Your task to perform on an android device: Do I have any events tomorrow? Image 0: 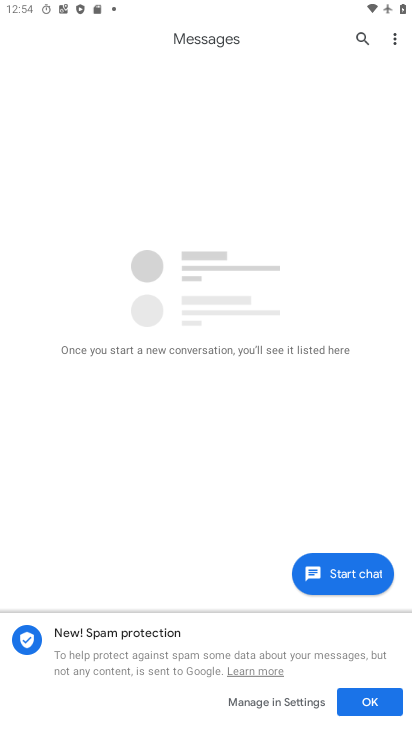
Step 0: press home button
Your task to perform on an android device: Do I have any events tomorrow? Image 1: 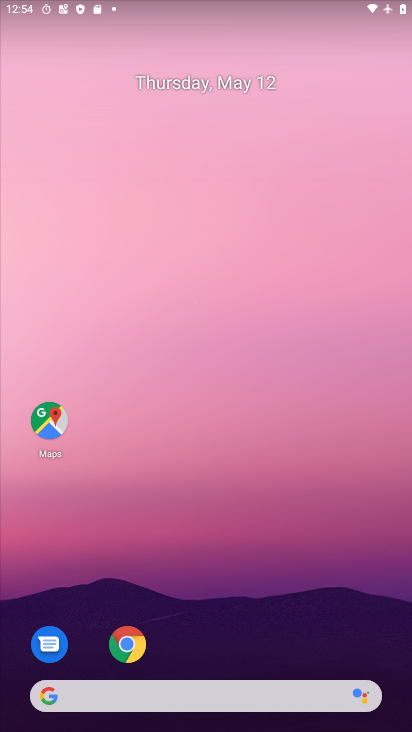
Step 1: drag from (239, 607) to (223, 212)
Your task to perform on an android device: Do I have any events tomorrow? Image 2: 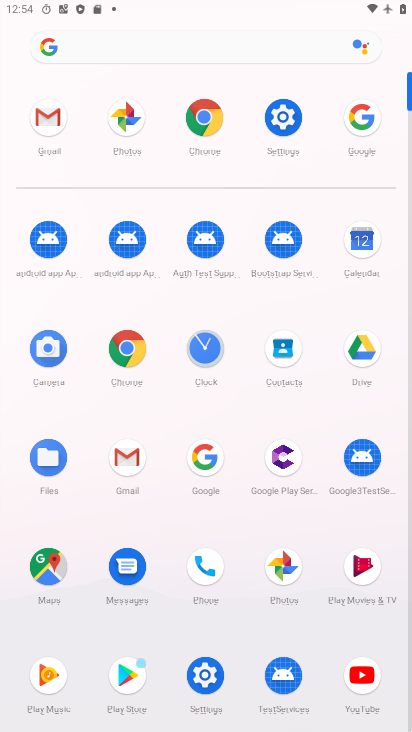
Step 2: click (352, 245)
Your task to perform on an android device: Do I have any events tomorrow? Image 3: 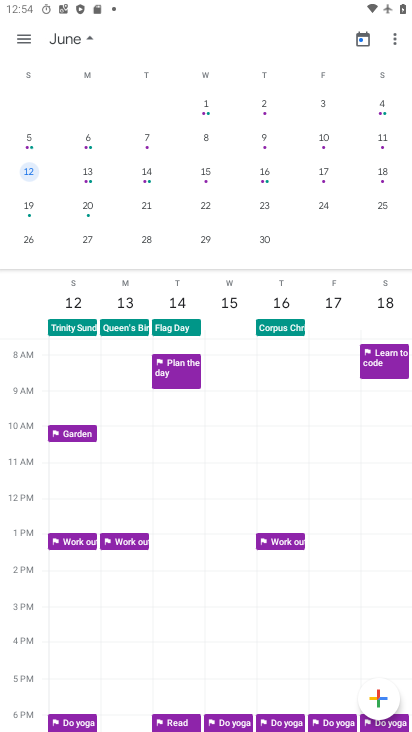
Step 3: task complete